Your task to perform on an android device: Search for seafood restaurants on Google Maps Image 0: 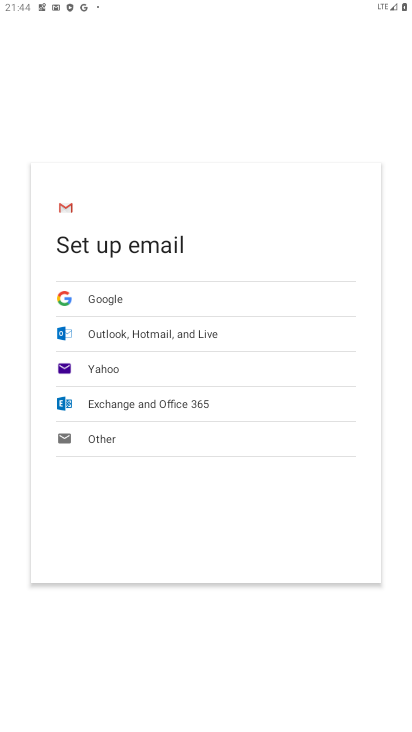
Step 0: press home button
Your task to perform on an android device: Search for seafood restaurants on Google Maps Image 1: 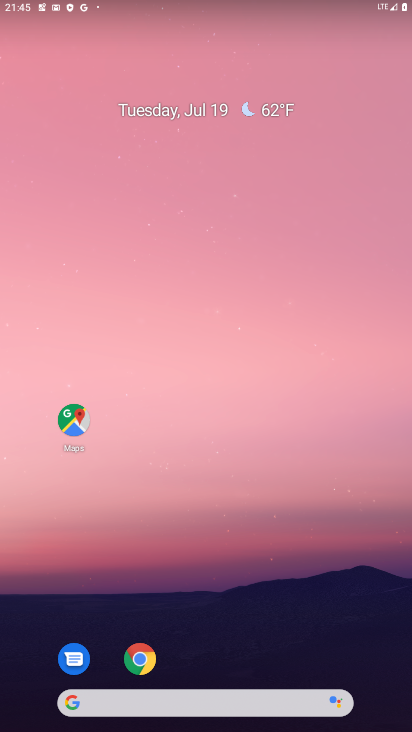
Step 1: drag from (317, 659) to (291, 117)
Your task to perform on an android device: Search for seafood restaurants on Google Maps Image 2: 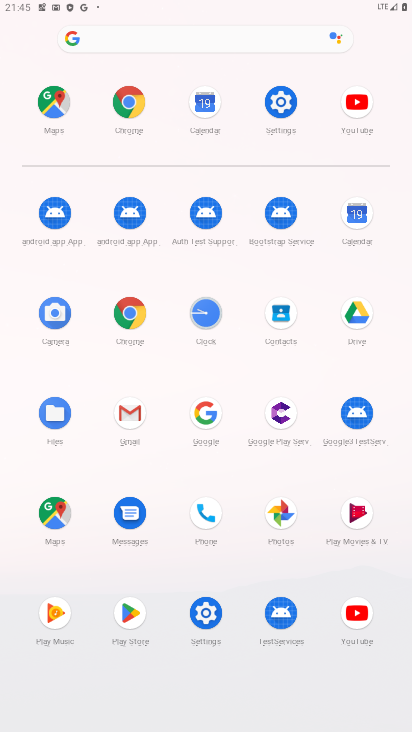
Step 2: click (51, 500)
Your task to perform on an android device: Search for seafood restaurants on Google Maps Image 3: 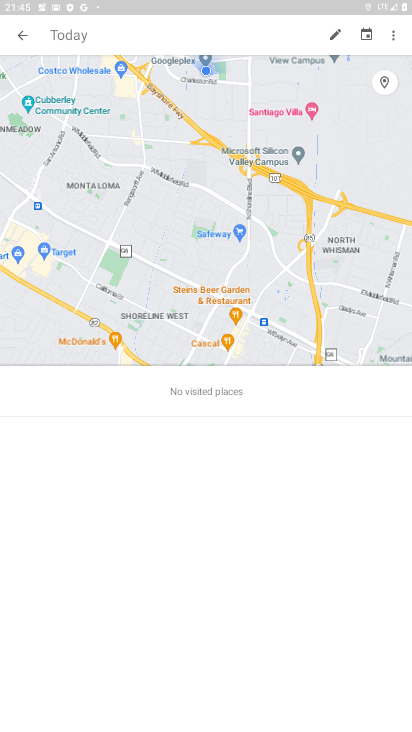
Step 3: click (20, 33)
Your task to perform on an android device: Search for seafood restaurants on Google Maps Image 4: 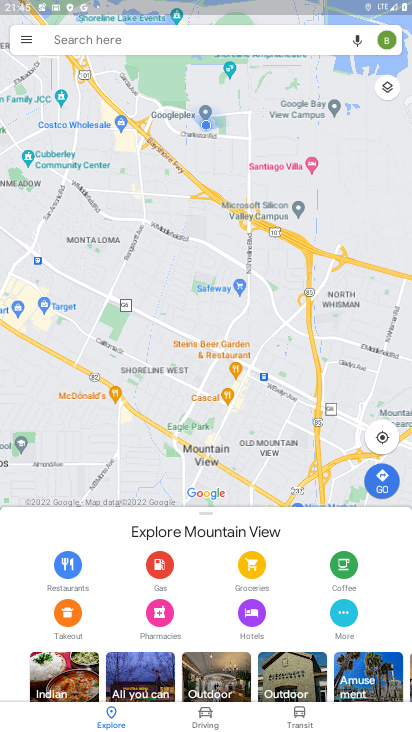
Step 4: click (77, 31)
Your task to perform on an android device: Search for seafood restaurants on Google Maps Image 5: 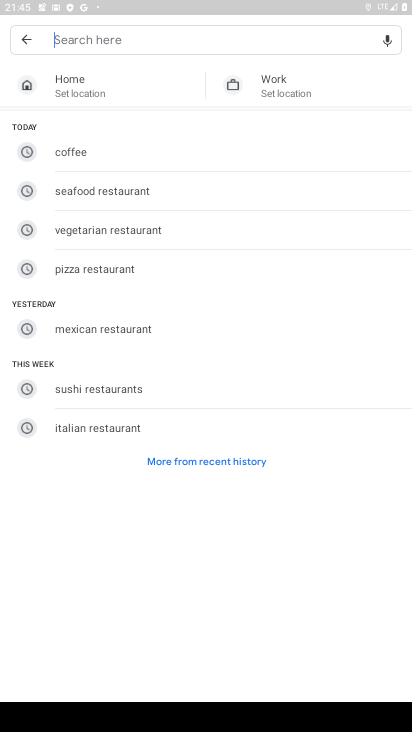
Step 5: type "seafood restaurants"
Your task to perform on an android device: Search for seafood restaurants on Google Maps Image 6: 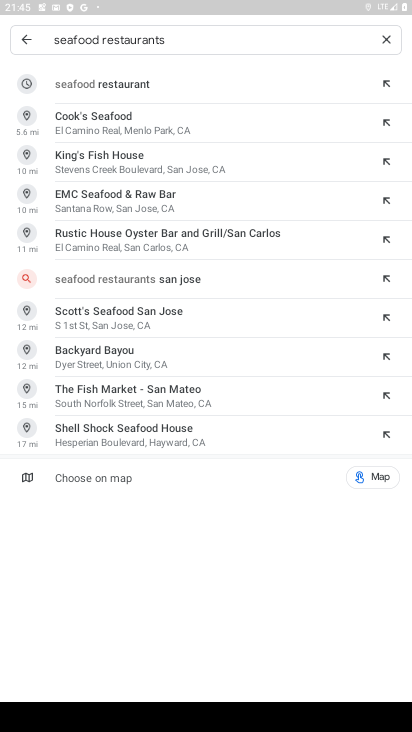
Step 6: click (92, 84)
Your task to perform on an android device: Search for seafood restaurants on Google Maps Image 7: 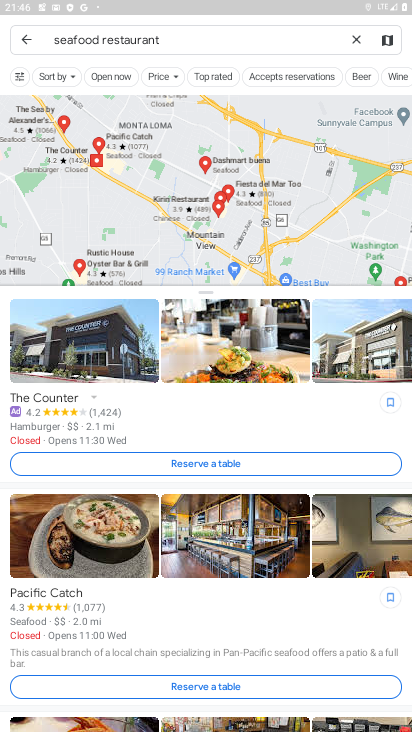
Step 7: task complete